Your task to perform on an android device: turn off improve location accuracy Image 0: 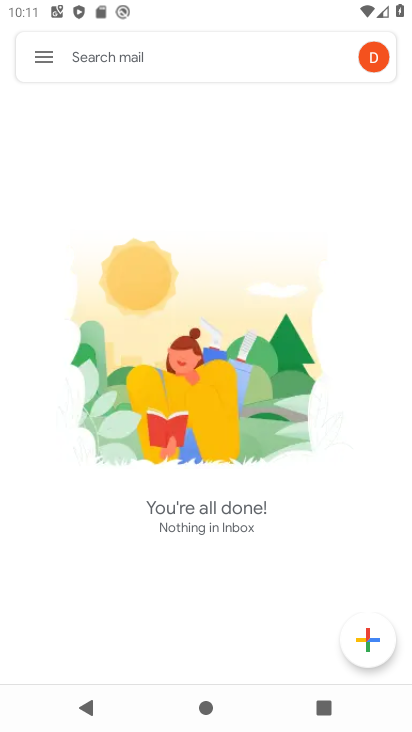
Step 0: press home button
Your task to perform on an android device: turn off improve location accuracy Image 1: 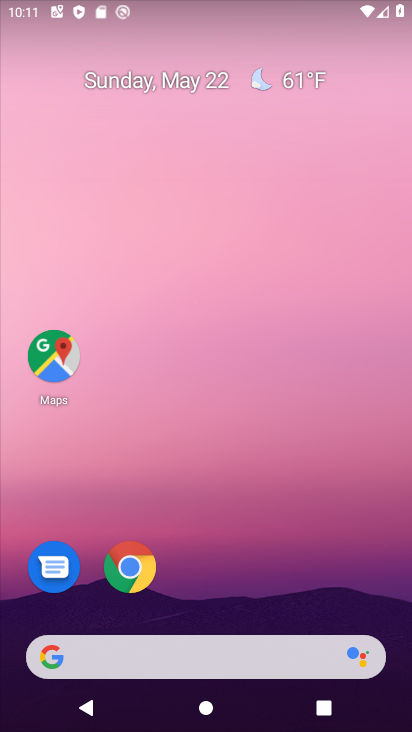
Step 1: drag from (169, 631) to (19, 6)
Your task to perform on an android device: turn off improve location accuracy Image 2: 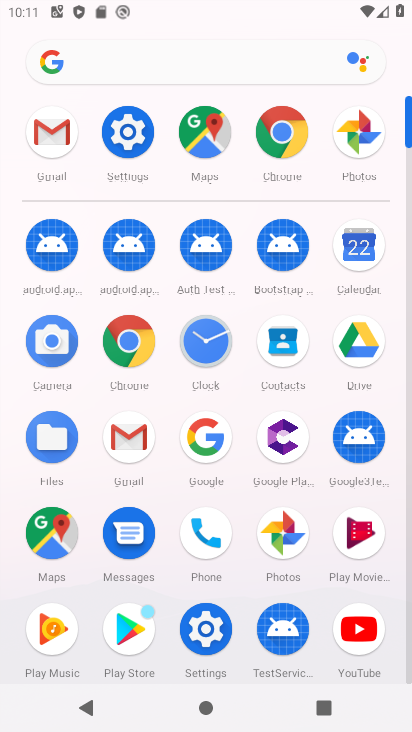
Step 2: click (113, 137)
Your task to perform on an android device: turn off improve location accuracy Image 3: 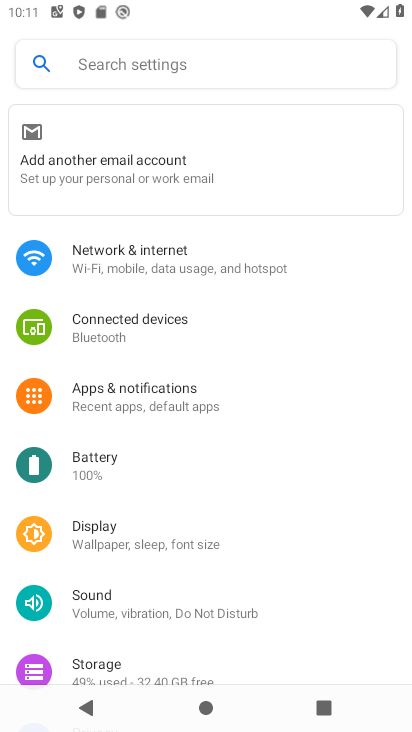
Step 3: drag from (238, 582) to (175, 161)
Your task to perform on an android device: turn off improve location accuracy Image 4: 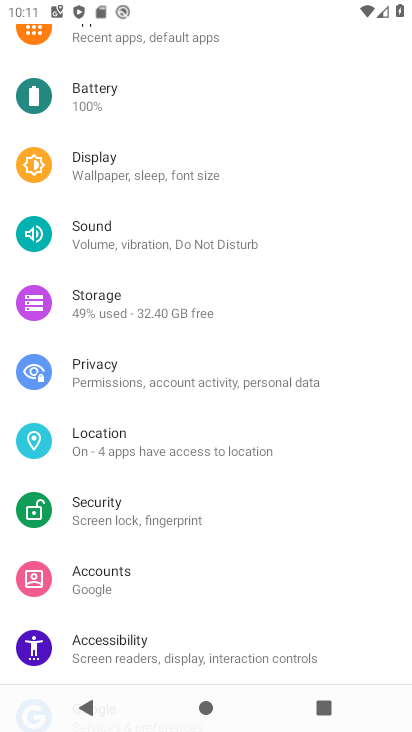
Step 4: click (126, 431)
Your task to perform on an android device: turn off improve location accuracy Image 5: 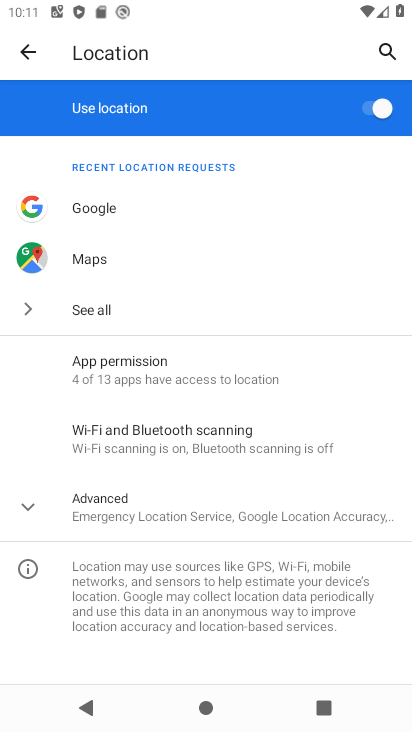
Step 5: click (107, 515)
Your task to perform on an android device: turn off improve location accuracy Image 6: 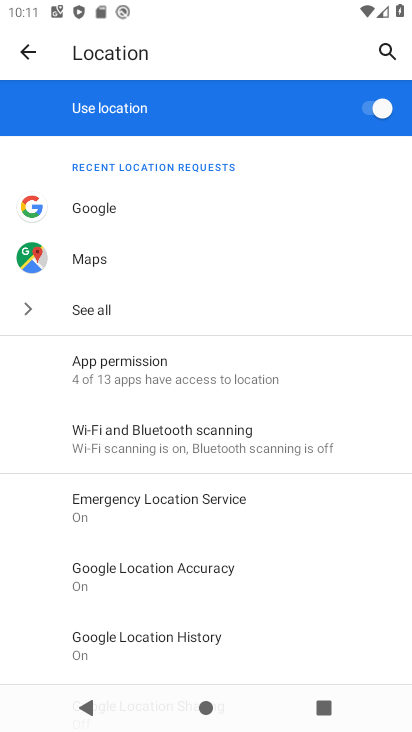
Step 6: click (162, 557)
Your task to perform on an android device: turn off improve location accuracy Image 7: 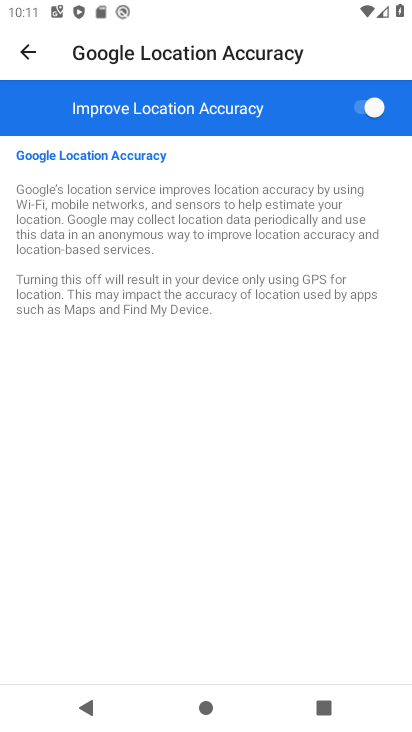
Step 7: click (371, 95)
Your task to perform on an android device: turn off improve location accuracy Image 8: 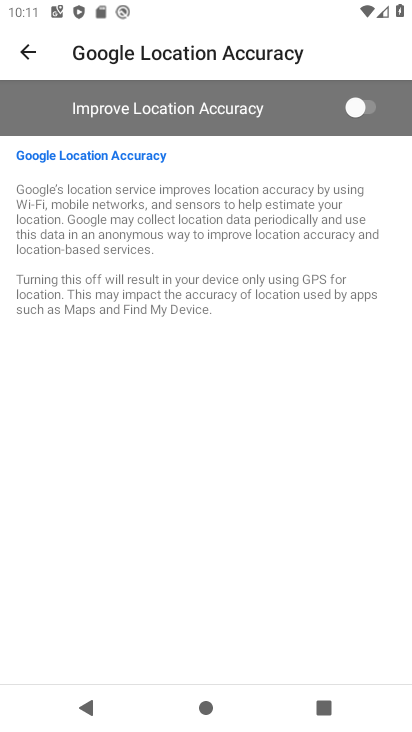
Step 8: task complete